Your task to perform on an android device: set the stopwatch Image 0: 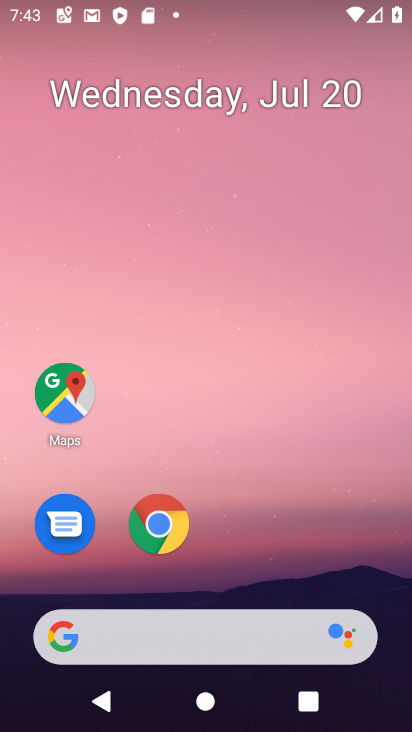
Step 0: drag from (146, 632) to (291, 40)
Your task to perform on an android device: set the stopwatch Image 1: 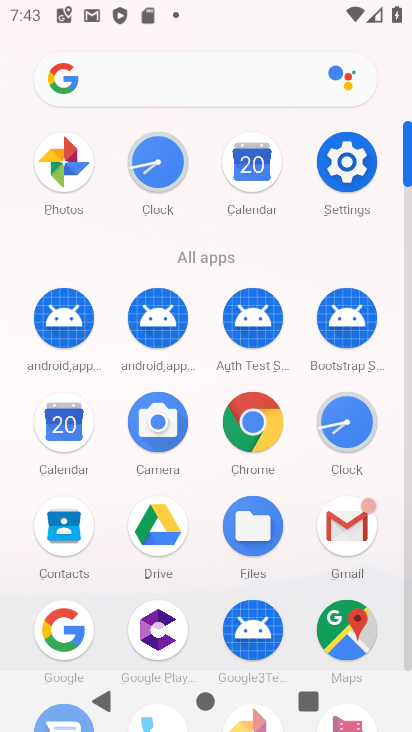
Step 1: click (350, 413)
Your task to perform on an android device: set the stopwatch Image 2: 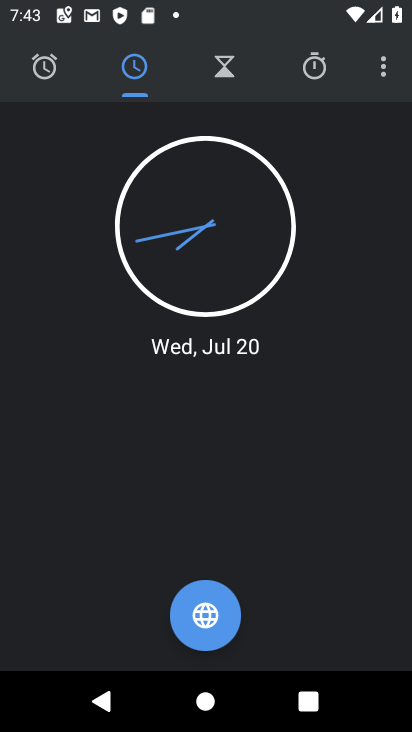
Step 2: click (336, 65)
Your task to perform on an android device: set the stopwatch Image 3: 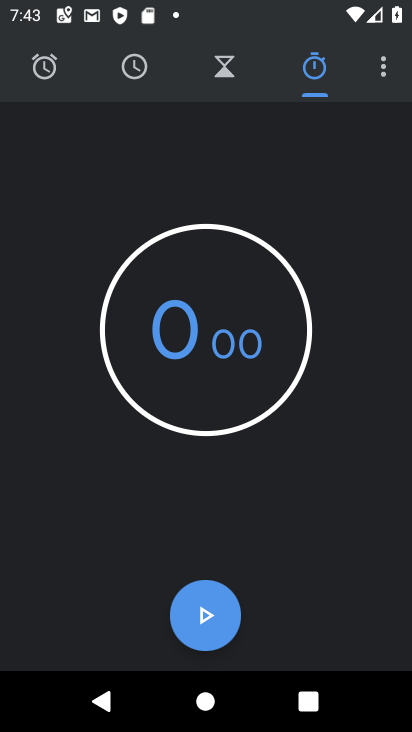
Step 3: click (200, 330)
Your task to perform on an android device: set the stopwatch Image 4: 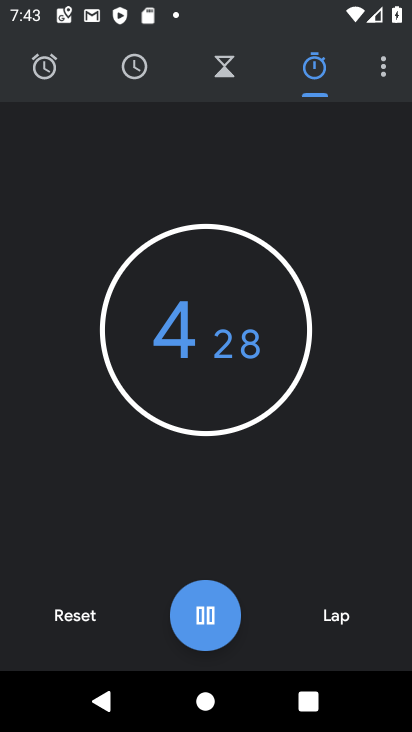
Step 4: click (201, 327)
Your task to perform on an android device: set the stopwatch Image 5: 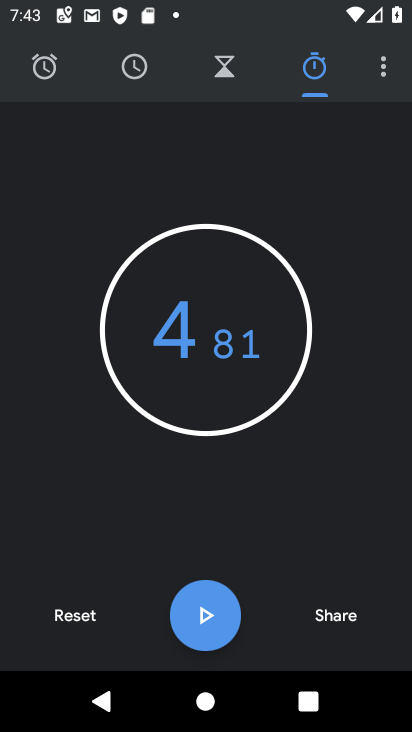
Step 5: task complete